Your task to perform on an android device: show emergency info Image 0: 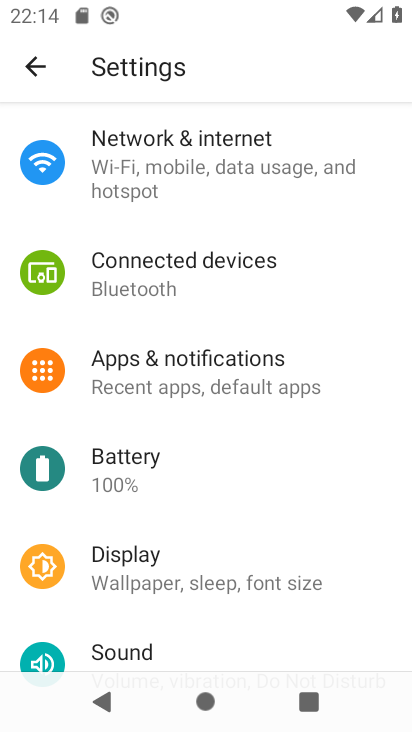
Step 0: press home button
Your task to perform on an android device: show emergency info Image 1: 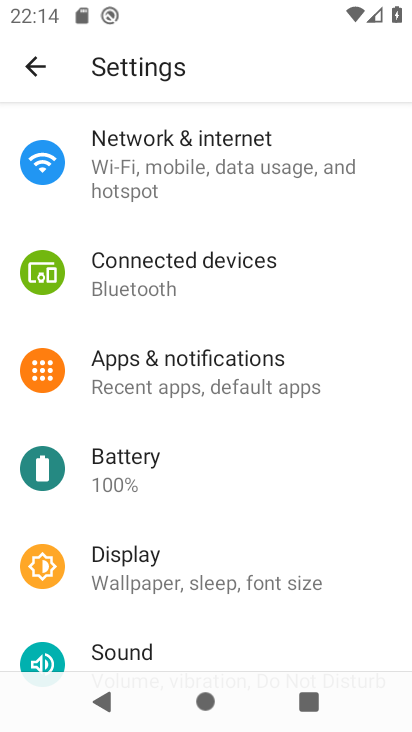
Step 1: press home button
Your task to perform on an android device: show emergency info Image 2: 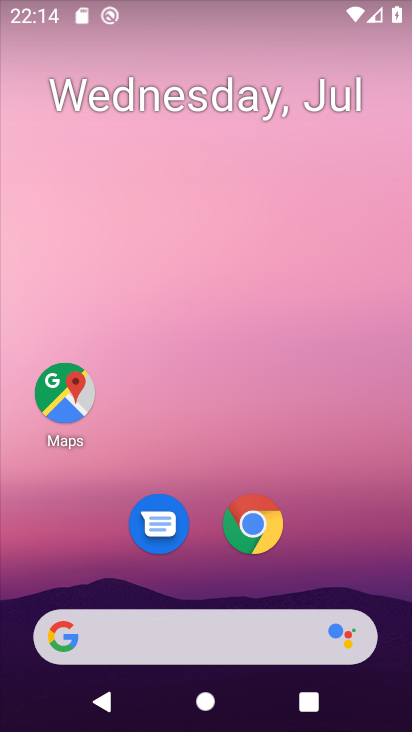
Step 2: drag from (332, 547) to (340, 90)
Your task to perform on an android device: show emergency info Image 3: 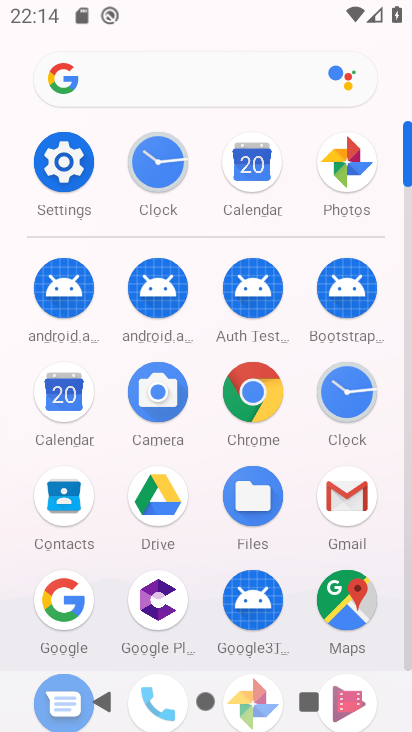
Step 3: click (73, 162)
Your task to perform on an android device: show emergency info Image 4: 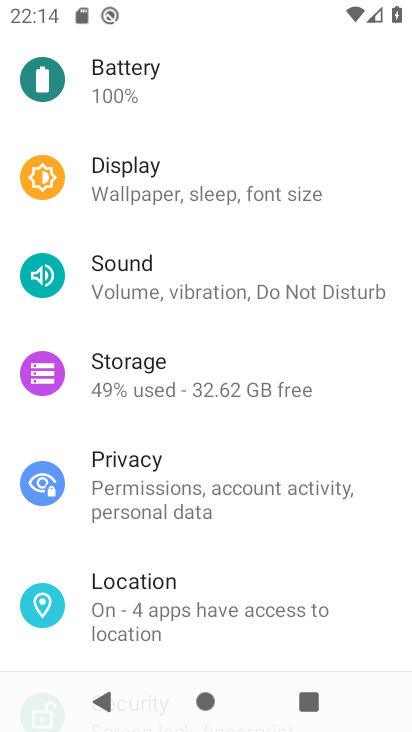
Step 4: drag from (267, 524) to (292, 8)
Your task to perform on an android device: show emergency info Image 5: 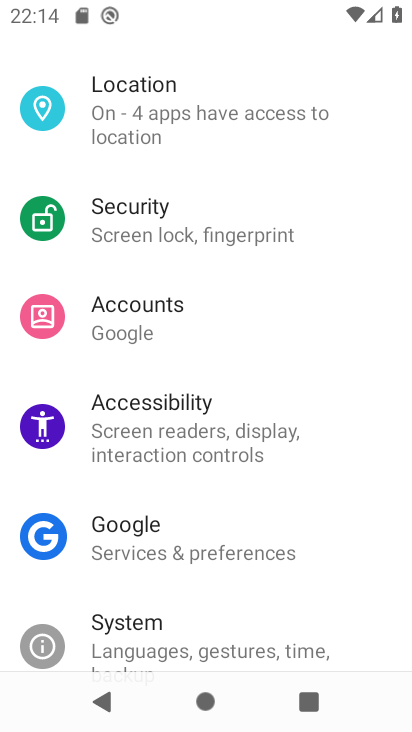
Step 5: drag from (214, 471) to (272, 47)
Your task to perform on an android device: show emergency info Image 6: 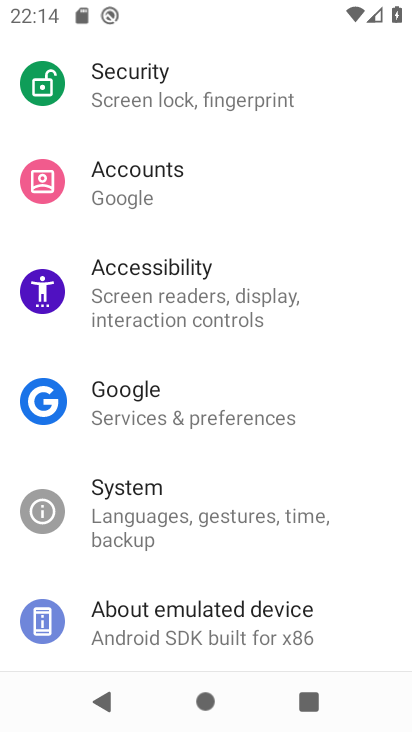
Step 6: click (206, 611)
Your task to perform on an android device: show emergency info Image 7: 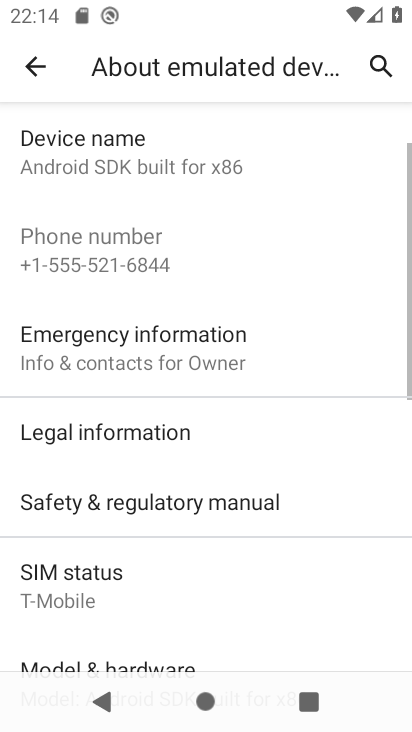
Step 7: click (190, 353)
Your task to perform on an android device: show emergency info Image 8: 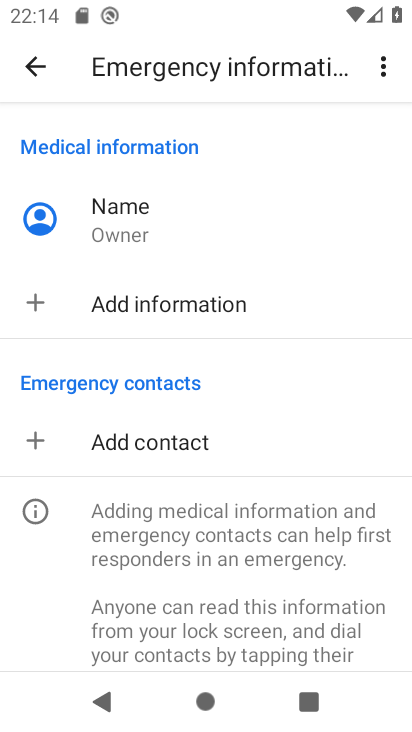
Step 8: task complete